Your task to perform on an android device: check out phone information Image 0: 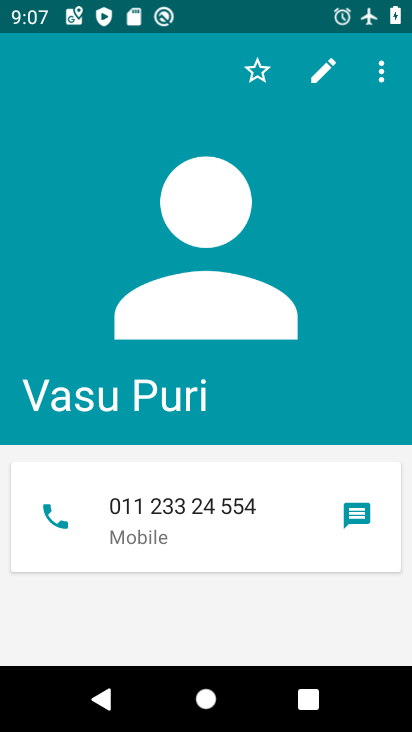
Step 0: press home button
Your task to perform on an android device: check out phone information Image 1: 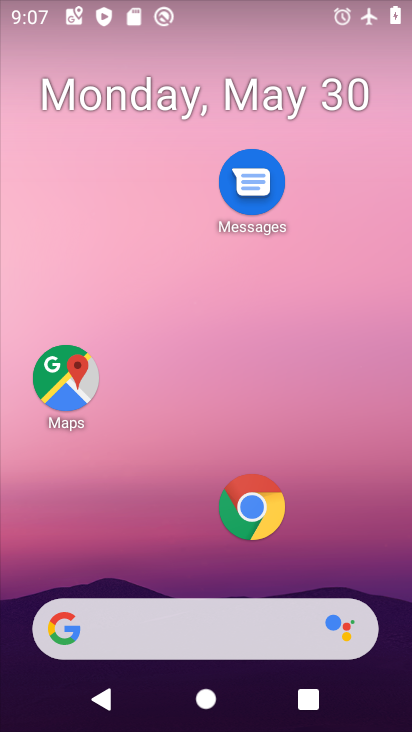
Step 1: drag from (199, 568) to (346, 28)
Your task to perform on an android device: check out phone information Image 2: 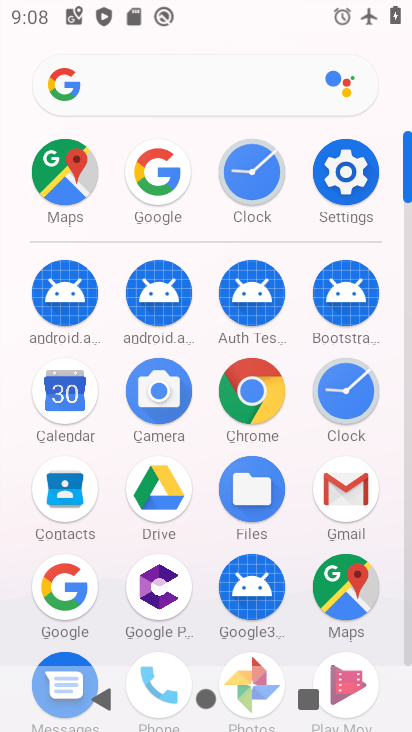
Step 2: click (331, 171)
Your task to perform on an android device: check out phone information Image 3: 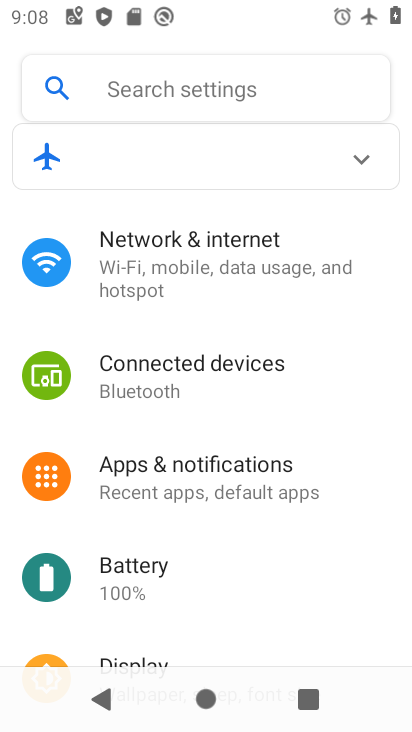
Step 3: drag from (232, 578) to (273, 78)
Your task to perform on an android device: check out phone information Image 4: 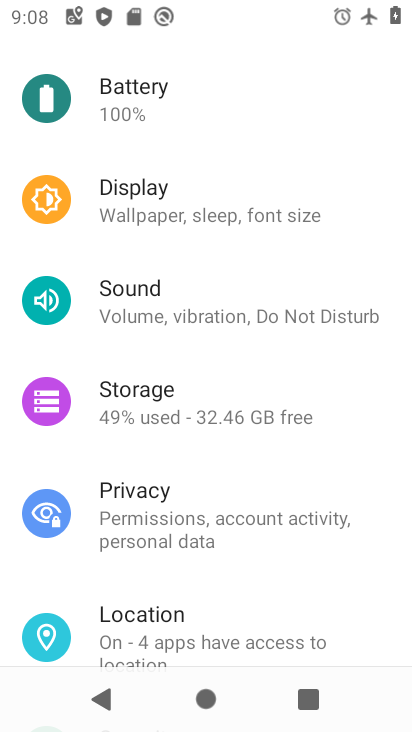
Step 4: drag from (262, 617) to (248, 168)
Your task to perform on an android device: check out phone information Image 5: 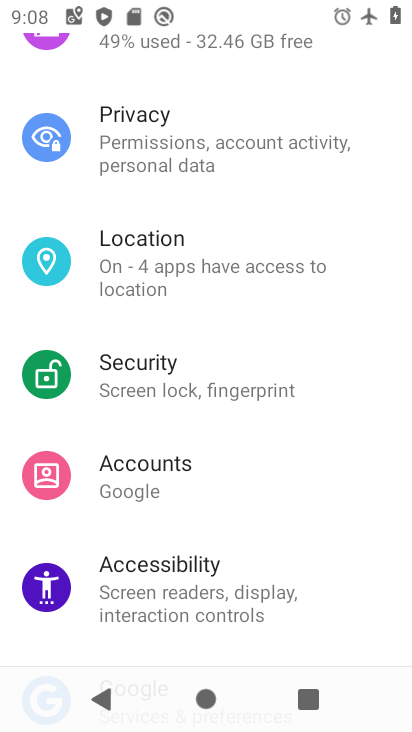
Step 5: drag from (176, 614) to (159, 210)
Your task to perform on an android device: check out phone information Image 6: 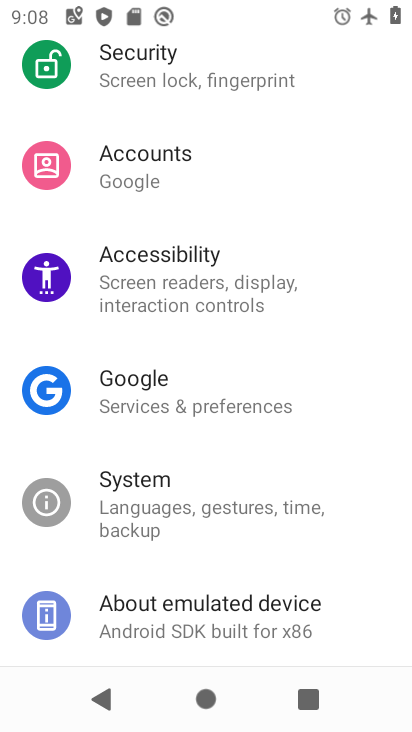
Step 6: click (255, 630)
Your task to perform on an android device: check out phone information Image 7: 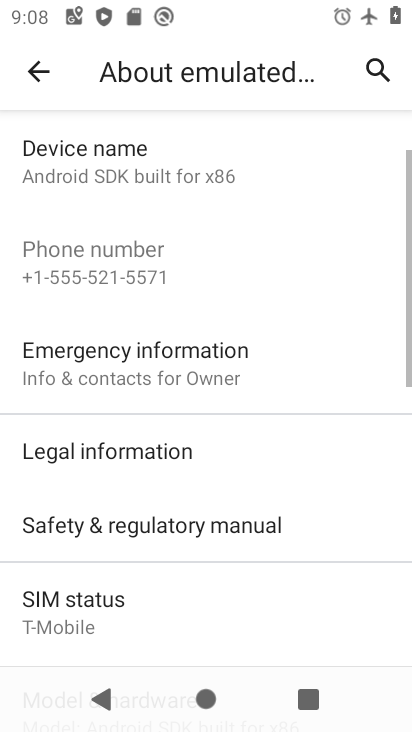
Step 7: task complete